Your task to perform on an android device: Open settings on Google Maps Image 0: 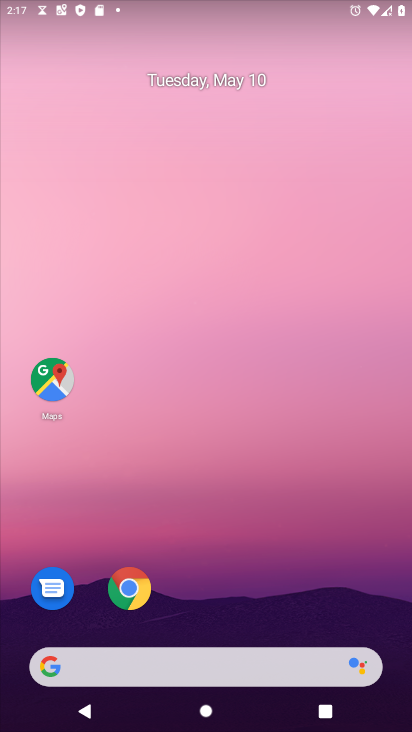
Step 0: drag from (257, 482) to (256, 206)
Your task to perform on an android device: Open settings on Google Maps Image 1: 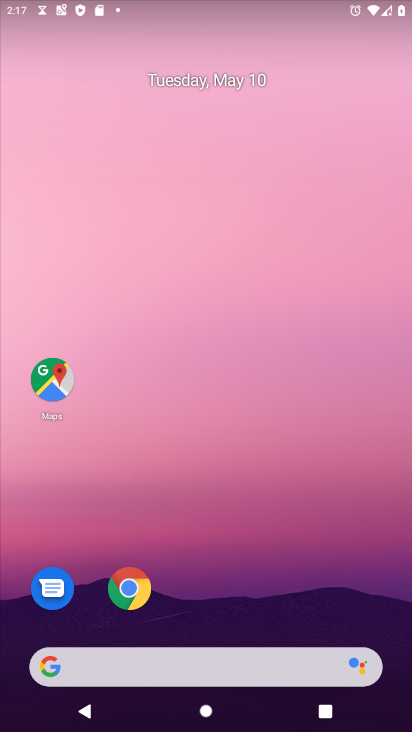
Step 1: drag from (223, 614) to (217, 224)
Your task to perform on an android device: Open settings on Google Maps Image 2: 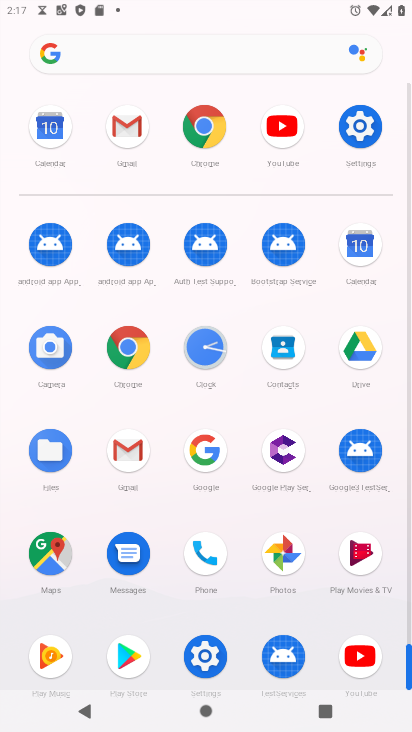
Step 2: click (44, 553)
Your task to perform on an android device: Open settings on Google Maps Image 3: 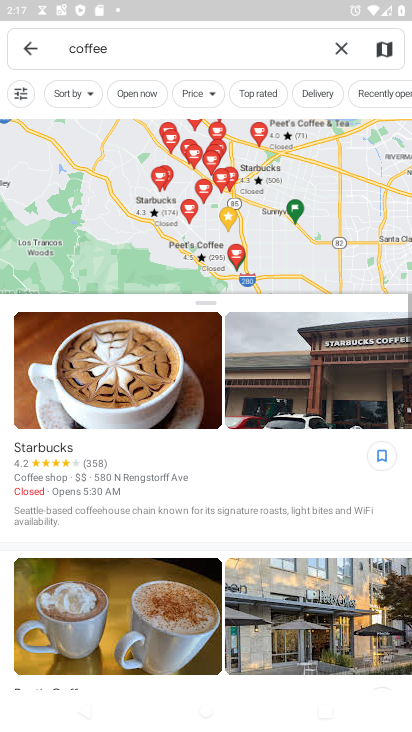
Step 3: click (332, 49)
Your task to perform on an android device: Open settings on Google Maps Image 4: 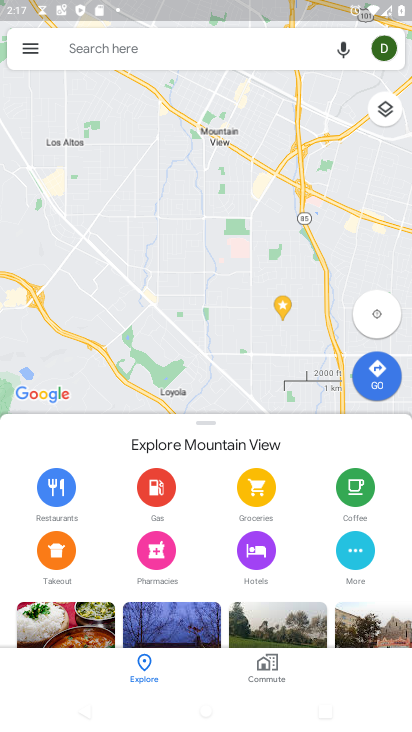
Step 4: click (28, 43)
Your task to perform on an android device: Open settings on Google Maps Image 5: 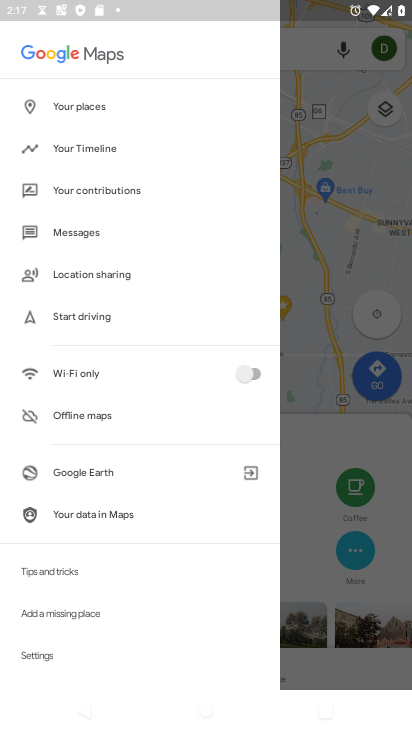
Step 5: click (66, 650)
Your task to perform on an android device: Open settings on Google Maps Image 6: 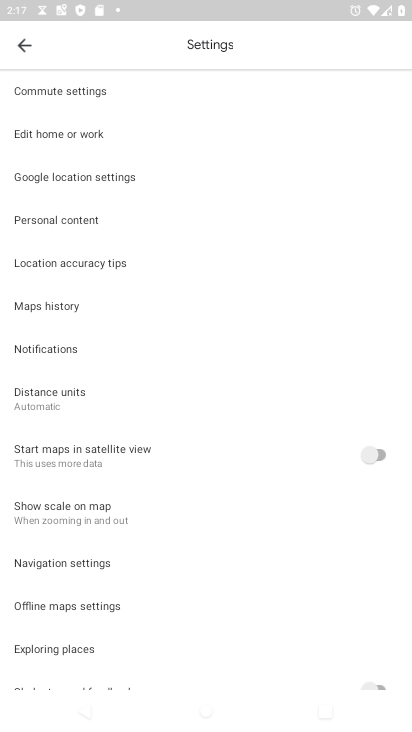
Step 6: task complete